Your task to perform on an android device: toggle airplane mode Image 0: 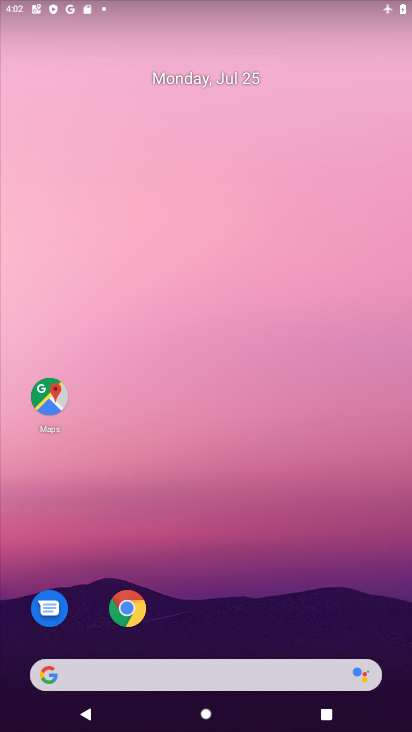
Step 0: press home button
Your task to perform on an android device: toggle airplane mode Image 1: 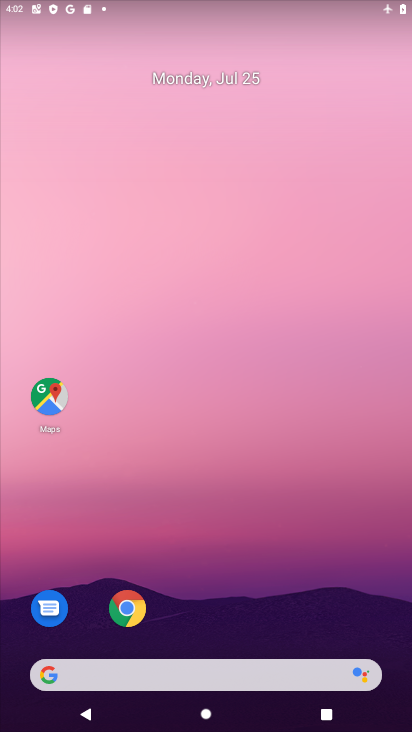
Step 1: drag from (232, 0) to (268, 619)
Your task to perform on an android device: toggle airplane mode Image 2: 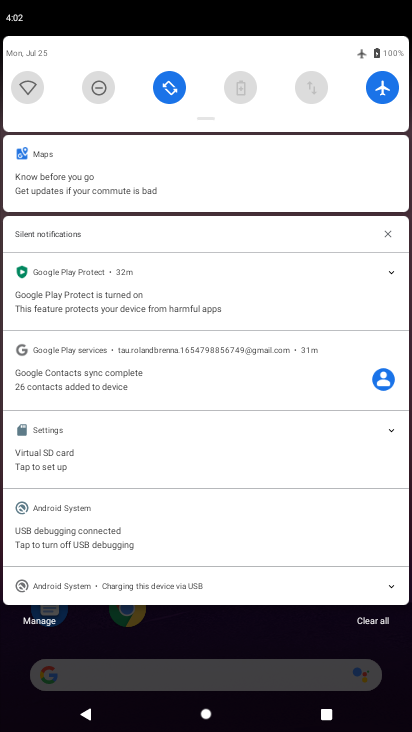
Step 2: click (381, 85)
Your task to perform on an android device: toggle airplane mode Image 3: 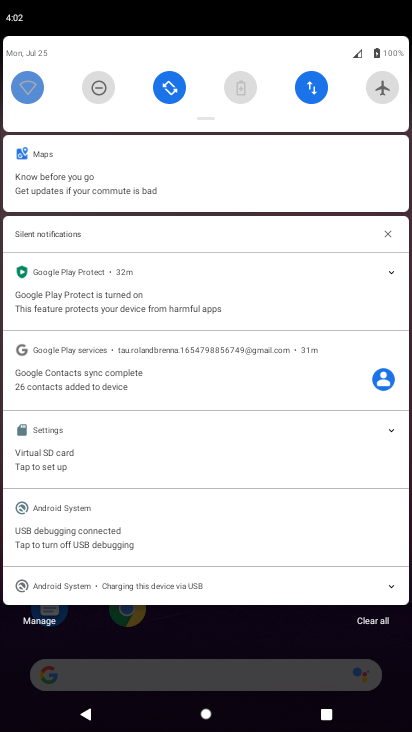
Step 3: task complete